Your task to perform on an android device: check storage Image 0: 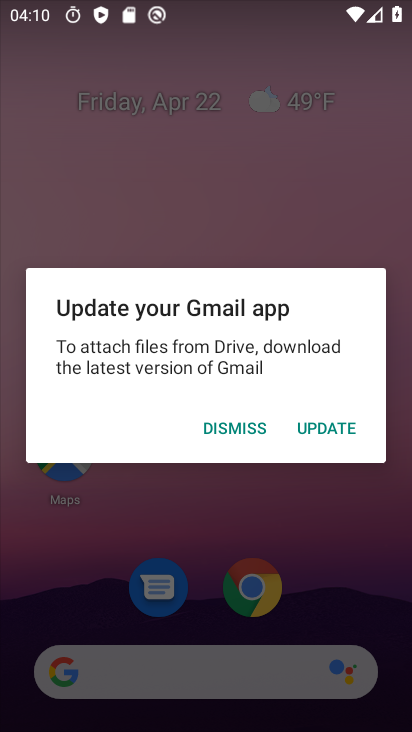
Step 0: press home button
Your task to perform on an android device: check storage Image 1: 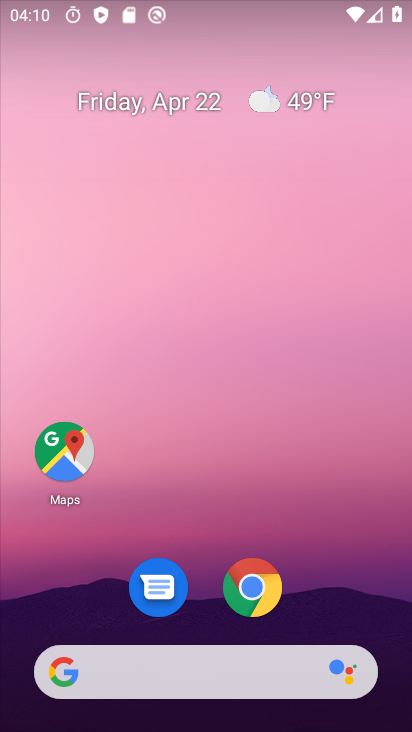
Step 1: drag from (361, 596) to (327, 0)
Your task to perform on an android device: check storage Image 2: 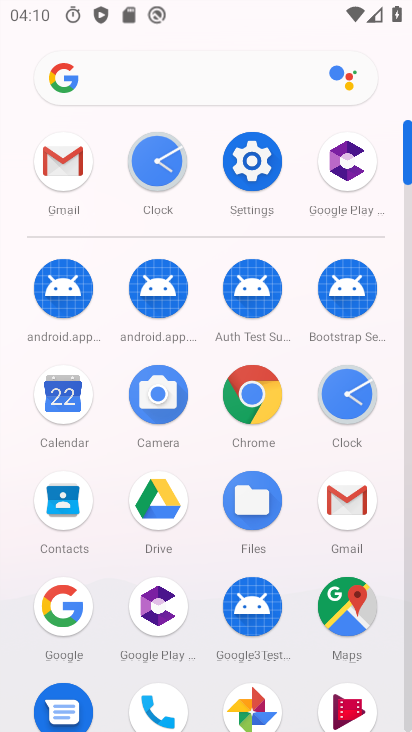
Step 2: click (252, 171)
Your task to perform on an android device: check storage Image 3: 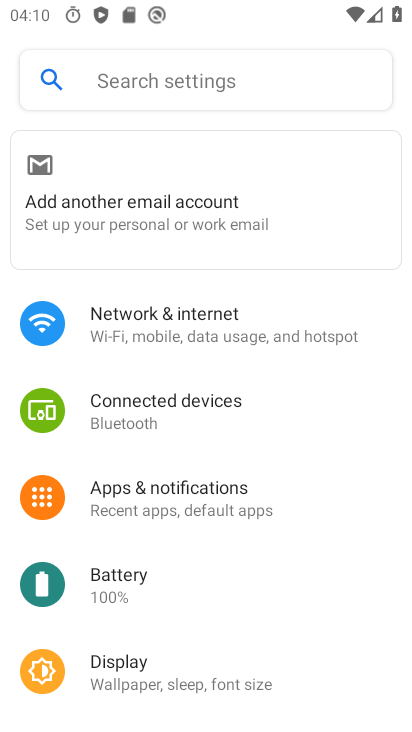
Step 3: drag from (338, 523) to (328, 157)
Your task to perform on an android device: check storage Image 4: 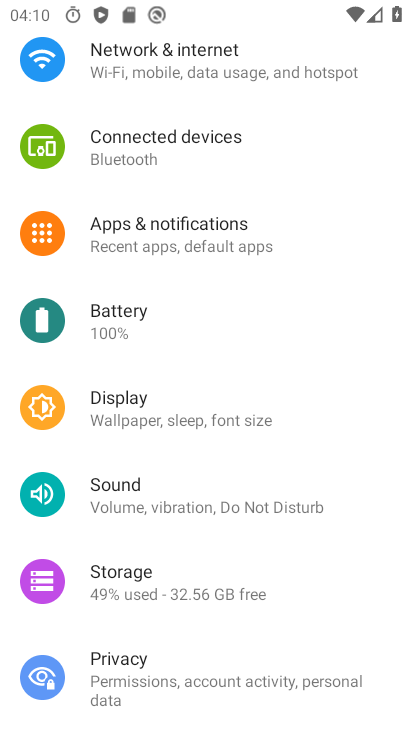
Step 4: click (135, 582)
Your task to perform on an android device: check storage Image 5: 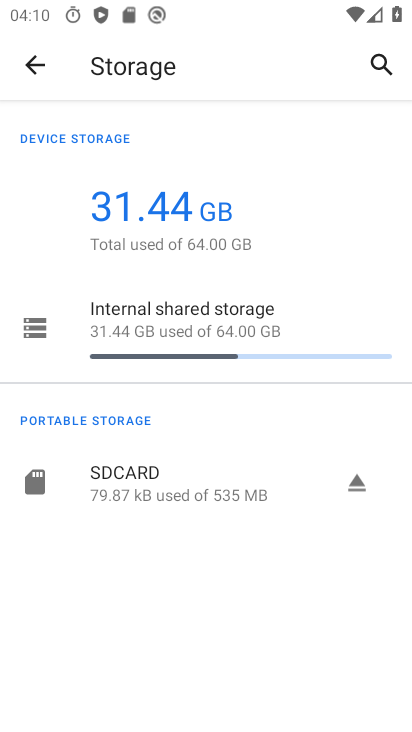
Step 5: click (145, 324)
Your task to perform on an android device: check storage Image 6: 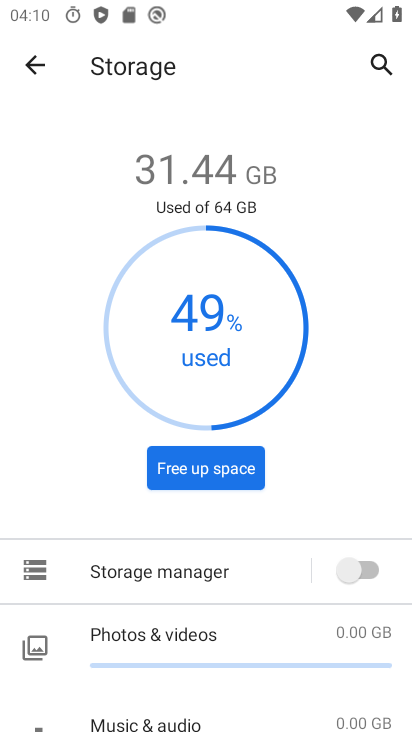
Step 6: task complete